Your task to perform on an android device: turn vacation reply on in the gmail app Image 0: 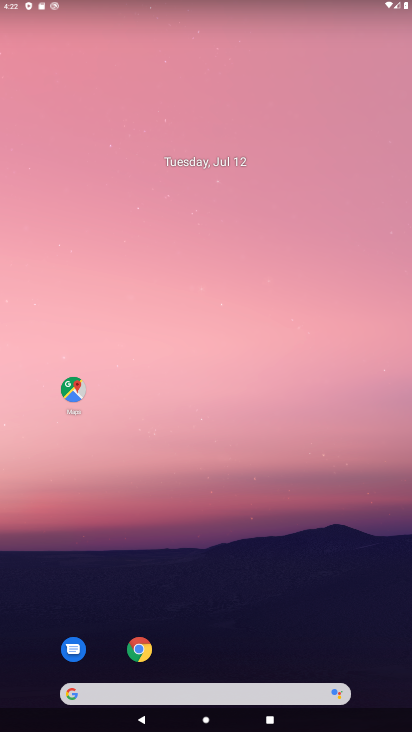
Step 0: press home button
Your task to perform on an android device: turn vacation reply on in the gmail app Image 1: 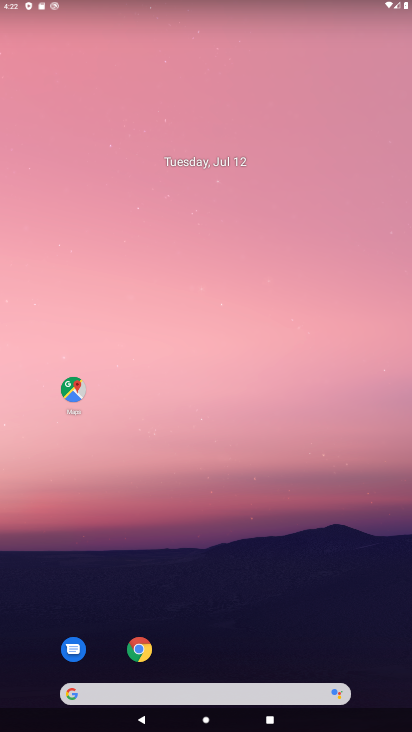
Step 1: drag from (187, 688) to (353, 87)
Your task to perform on an android device: turn vacation reply on in the gmail app Image 2: 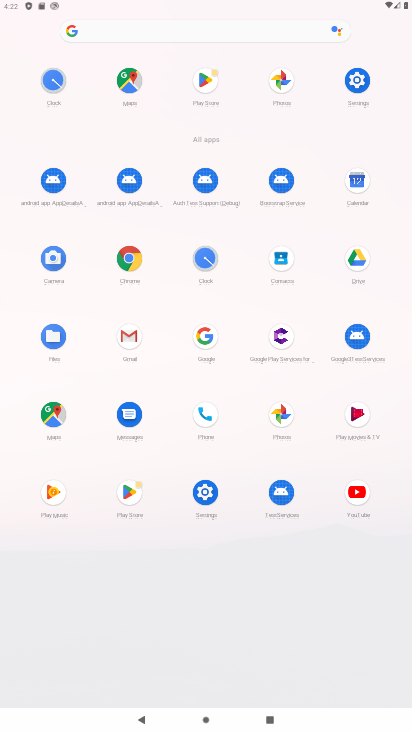
Step 2: click (128, 336)
Your task to perform on an android device: turn vacation reply on in the gmail app Image 3: 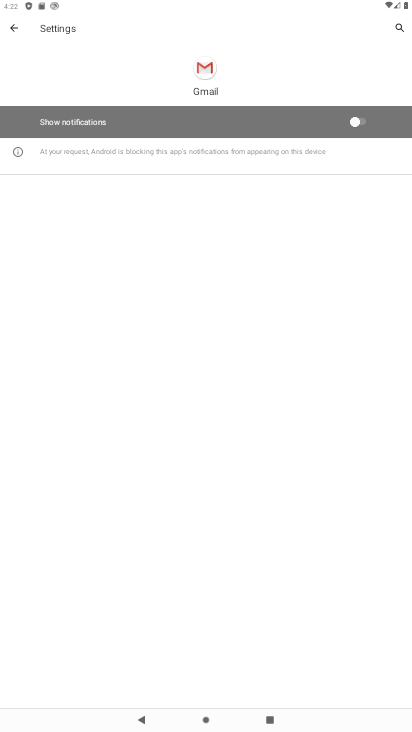
Step 3: press back button
Your task to perform on an android device: turn vacation reply on in the gmail app Image 4: 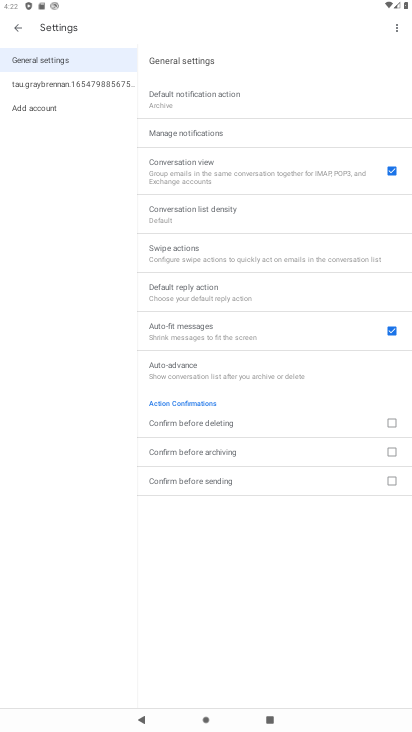
Step 4: click (74, 84)
Your task to perform on an android device: turn vacation reply on in the gmail app Image 5: 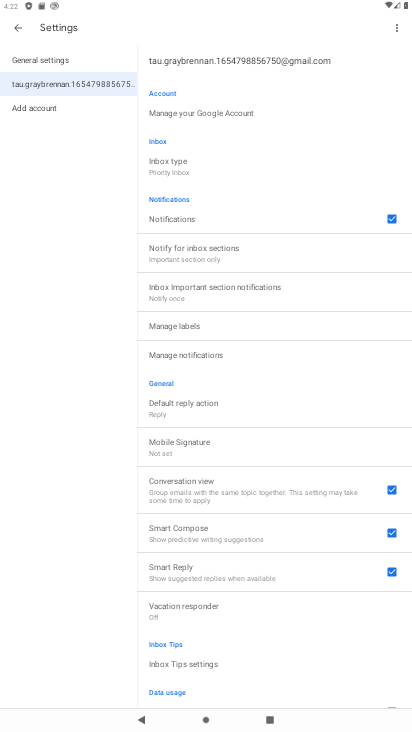
Step 5: click (183, 602)
Your task to perform on an android device: turn vacation reply on in the gmail app Image 6: 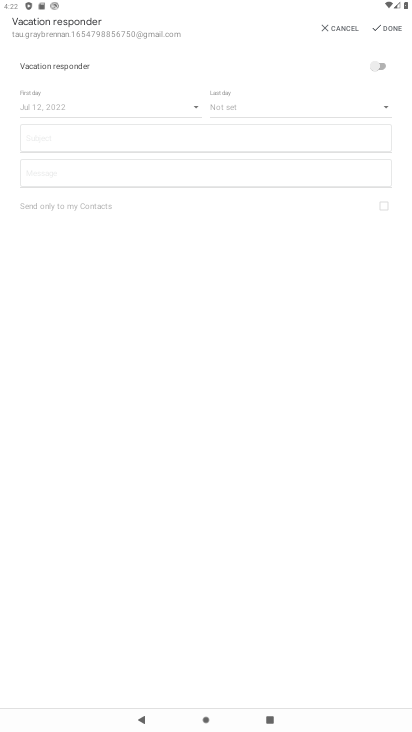
Step 6: click (382, 64)
Your task to perform on an android device: turn vacation reply on in the gmail app Image 7: 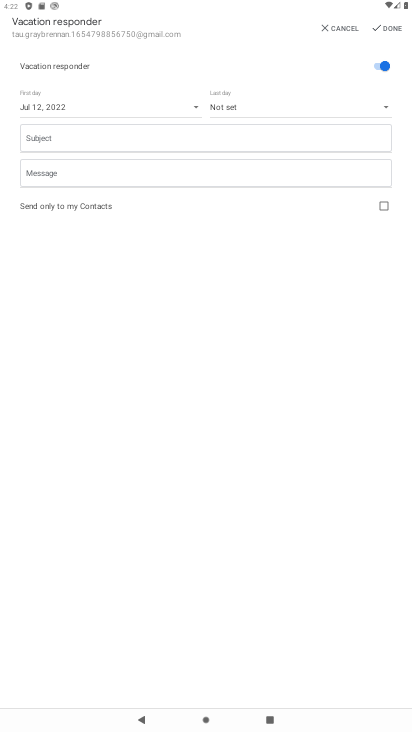
Step 7: task complete